Your task to perform on an android device: uninstall "Microsoft Outlook" Image 0: 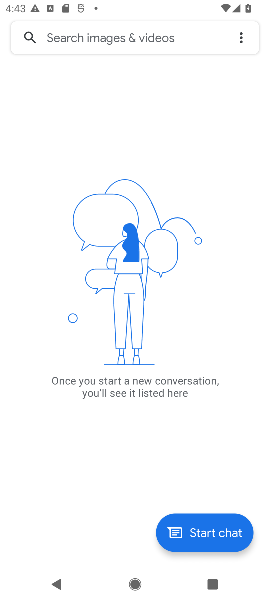
Step 0: press home button
Your task to perform on an android device: uninstall "Microsoft Outlook" Image 1: 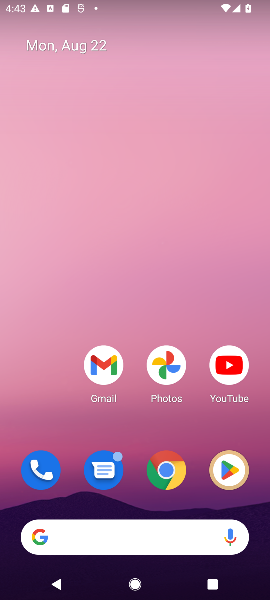
Step 1: drag from (140, 488) to (117, 69)
Your task to perform on an android device: uninstall "Microsoft Outlook" Image 2: 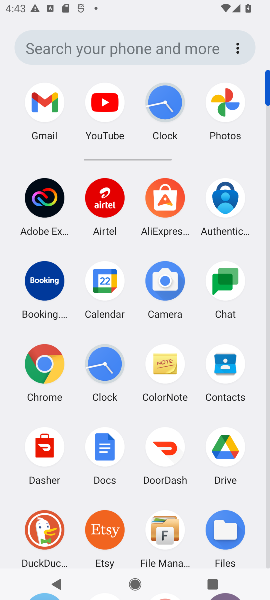
Step 2: drag from (126, 420) to (128, 159)
Your task to perform on an android device: uninstall "Microsoft Outlook" Image 3: 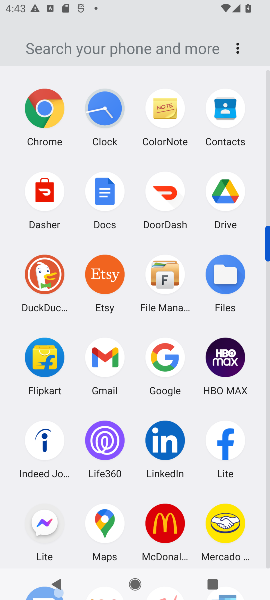
Step 3: drag from (72, 528) to (87, 253)
Your task to perform on an android device: uninstall "Microsoft Outlook" Image 4: 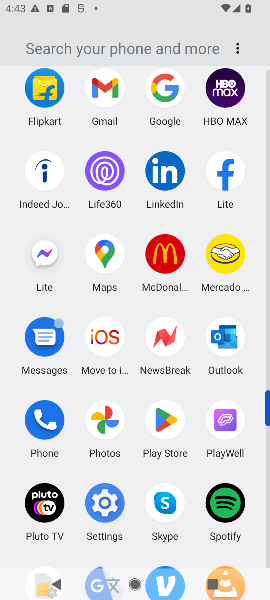
Step 4: click (165, 416)
Your task to perform on an android device: uninstall "Microsoft Outlook" Image 5: 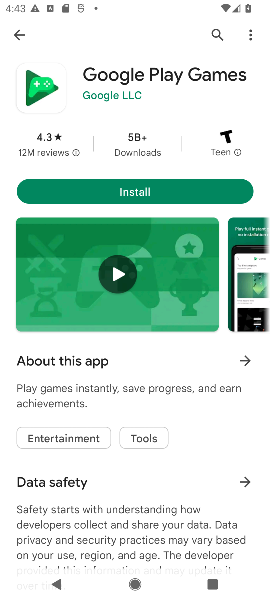
Step 5: click (30, 31)
Your task to perform on an android device: uninstall "Microsoft Outlook" Image 6: 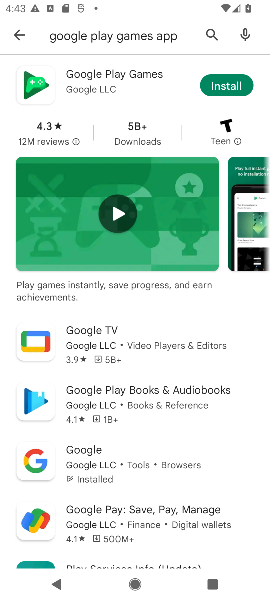
Step 6: click (27, 34)
Your task to perform on an android device: uninstall "Microsoft Outlook" Image 7: 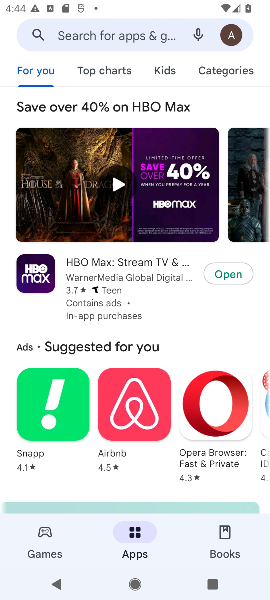
Step 7: click (135, 28)
Your task to perform on an android device: uninstall "Microsoft Outlook" Image 8: 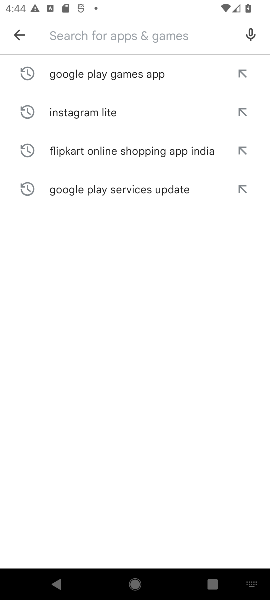
Step 8: type "Microsoft Outlook" "
Your task to perform on an android device: uninstall "Microsoft Outlook" Image 9: 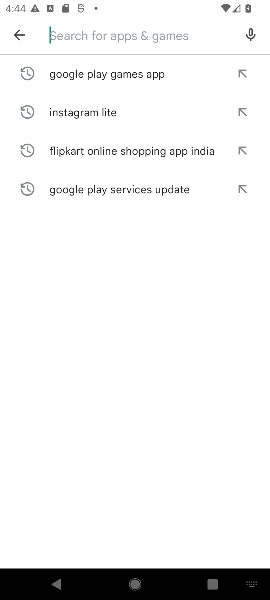
Step 9: click (115, 22)
Your task to perform on an android device: uninstall "Microsoft Outlook" Image 10: 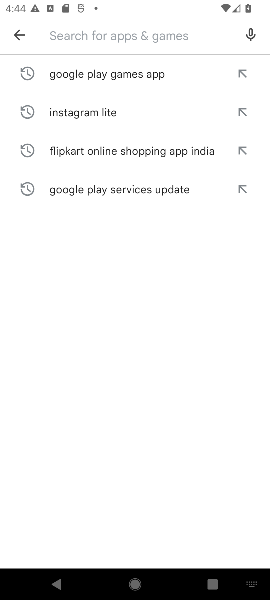
Step 10: click (116, 41)
Your task to perform on an android device: uninstall "Microsoft Outlook" Image 11: 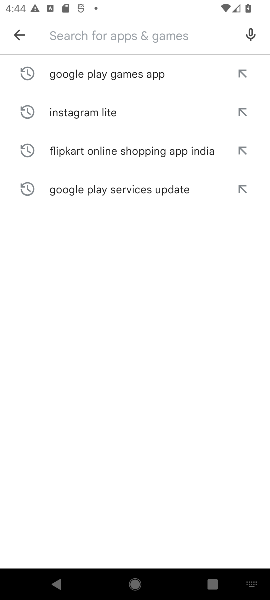
Step 11: type "Microsoft Outlook "
Your task to perform on an android device: uninstall "Microsoft Outlook" Image 12: 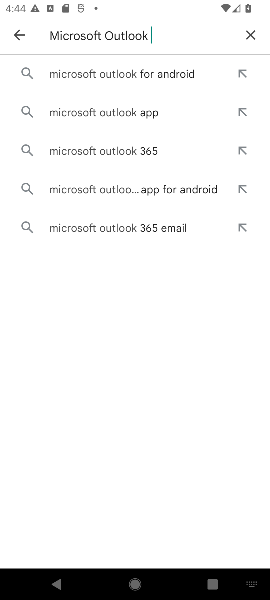
Step 12: click (112, 75)
Your task to perform on an android device: uninstall "Microsoft Outlook" Image 13: 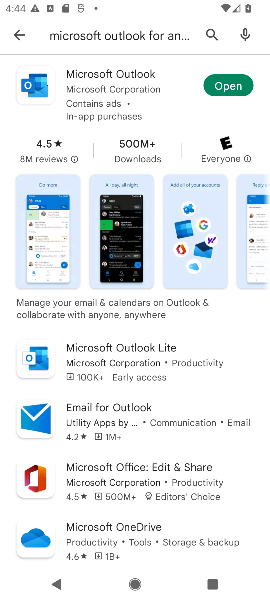
Step 13: click (111, 75)
Your task to perform on an android device: uninstall "Microsoft Outlook" Image 14: 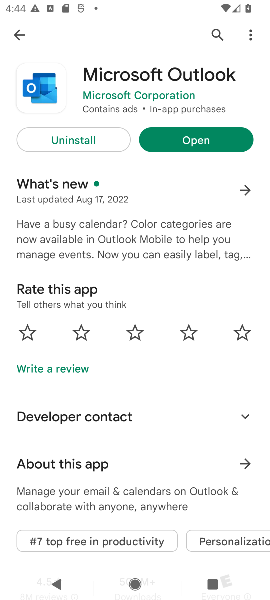
Step 14: click (76, 138)
Your task to perform on an android device: uninstall "Microsoft Outlook" Image 15: 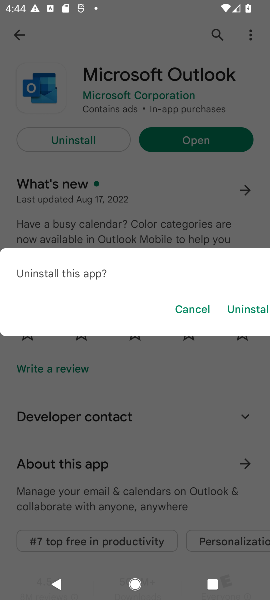
Step 15: click (255, 307)
Your task to perform on an android device: uninstall "Microsoft Outlook" Image 16: 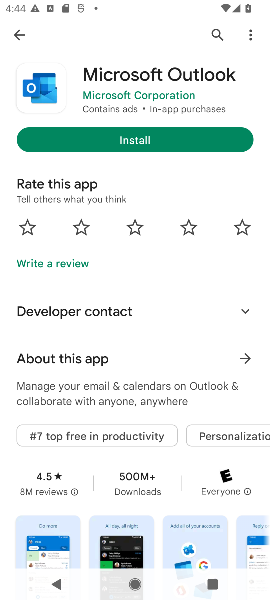
Step 16: task complete